Your task to perform on an android device: turn off javascript in the chrome app Image 0: 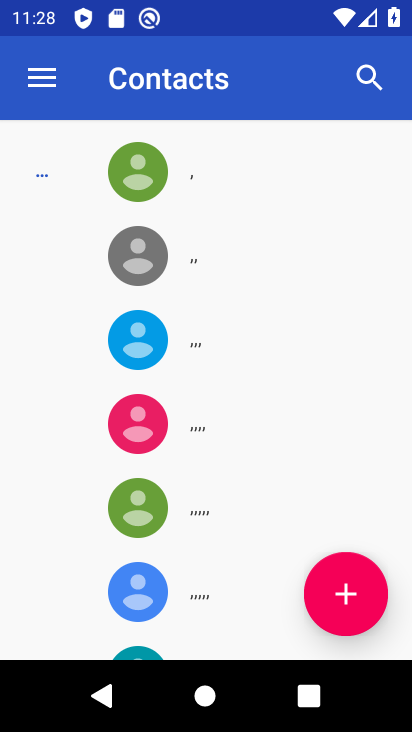
Step 0: press home button
Your task to perform on an android device: turn off javascript in the chrome app Image 1: 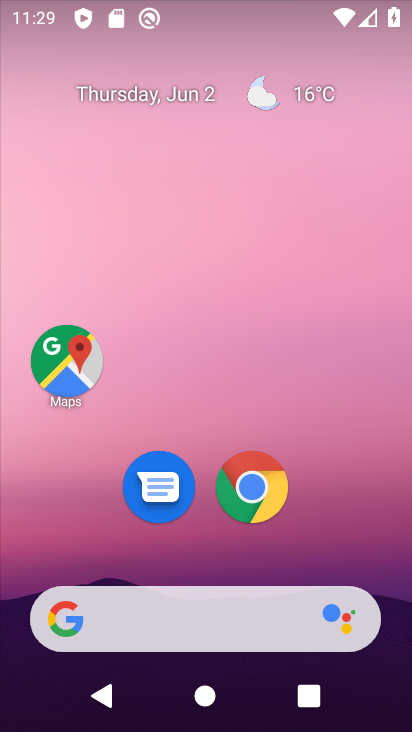
Step 1: click (270, 499)
Your task to perform on an android device: turn off javascript in the chrome app Image 2: 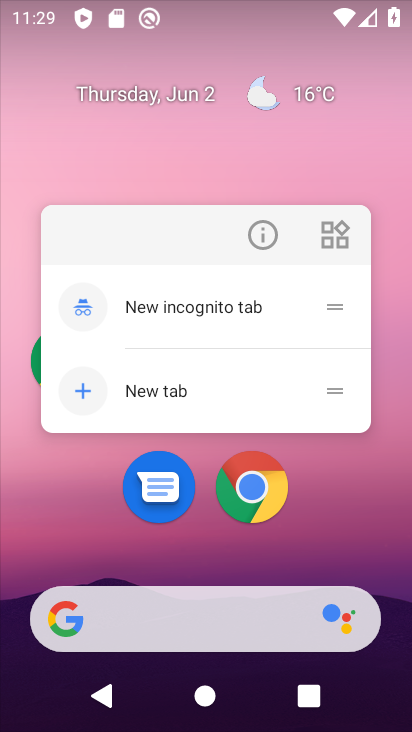
Step 2: click (270, 499)
Your task to perform on an android device: turn off javascript in the chrome app Image 3: 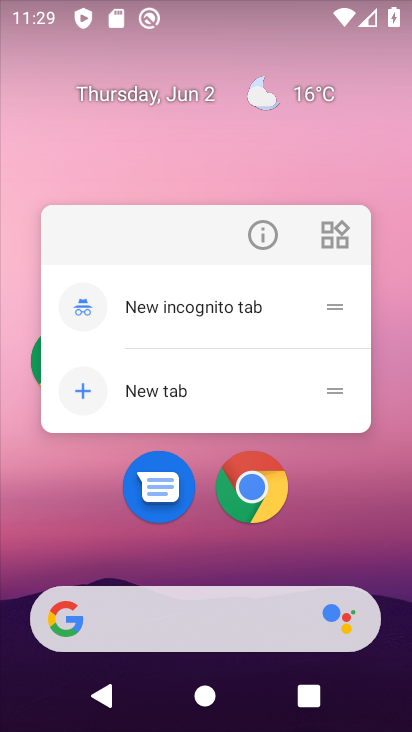
Step 3: click (254, 497)
Your task to perform on an android device: turn off javascript in the chrome app Image 4: 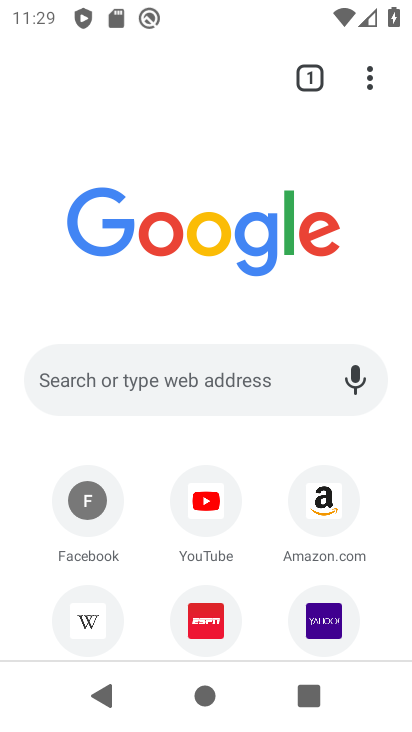
Step 4: press home button
Your task to perform on an android device: turn off javascript in the chrome app Image 5: 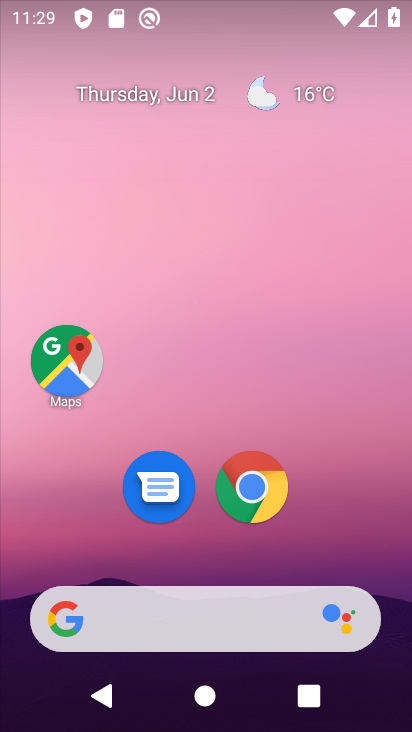
Step 5: click (264, 485)
Your task to perform on an android device: turn off javascript in the chrome app Image 6: 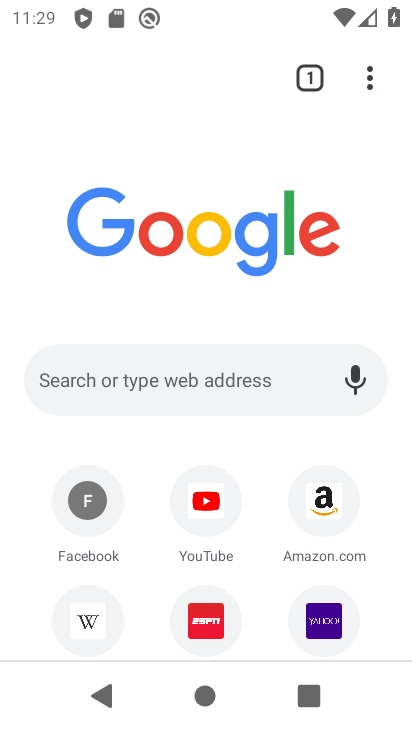
Step 6: drag from (377, 82) to (120, 565)
Your task to perform on an android device: turn off javascript in the chrome app Image 7: 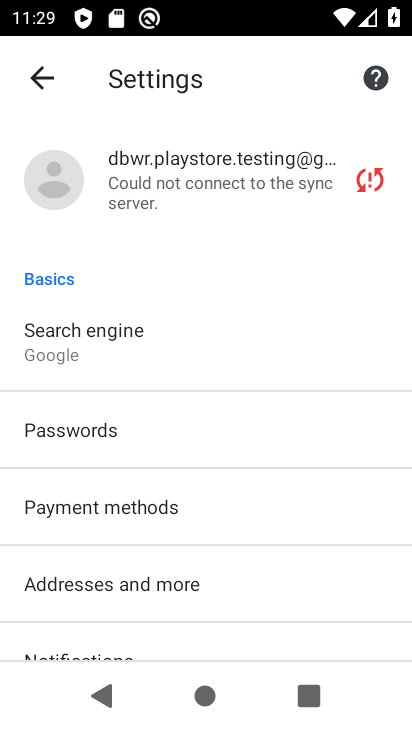
Step 7: drag from (210, 638) to (204, 412)
Your task to perform on an android device: turn off javascript in the chrome app Image 8: 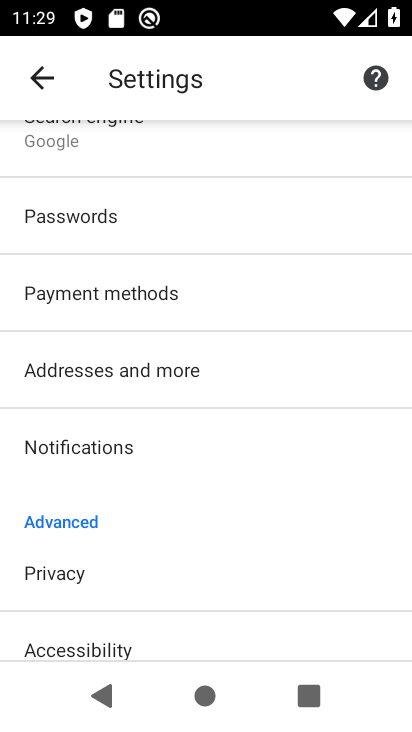
Step 8: drag from (155, 645) to (193, 377)
Your task to perform on an android device: turn off javascript in the chrome app Image 9: 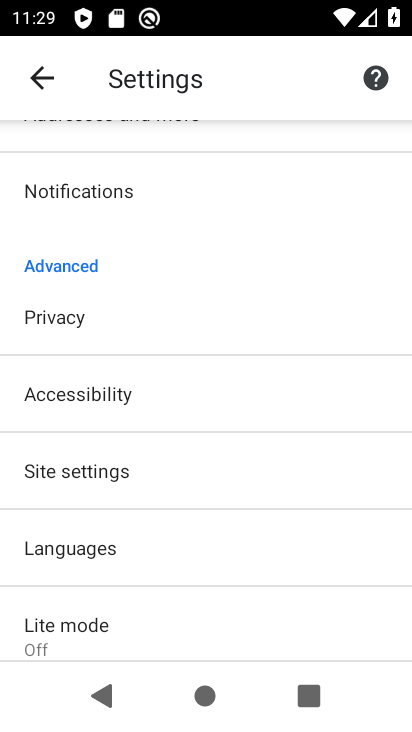
Step 9: click (72, 475)
Your task to perform on an android device: turn off javascript in the chrome app Image 10: 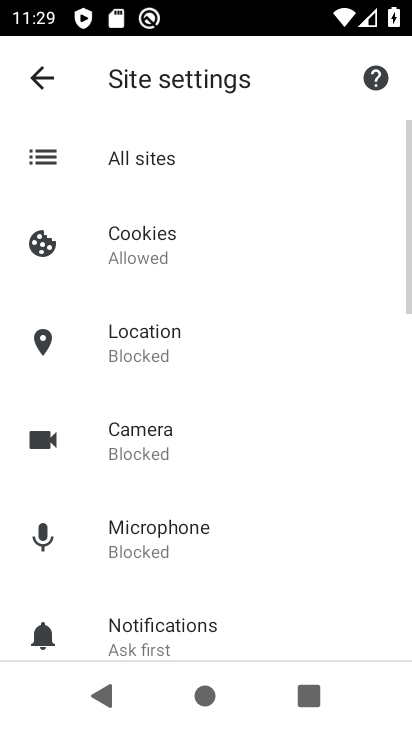
Step 10: drag from (267, 585) to (285, 297)
Your task to perform on an android device: turn off javascript in the chrome app Image 11: 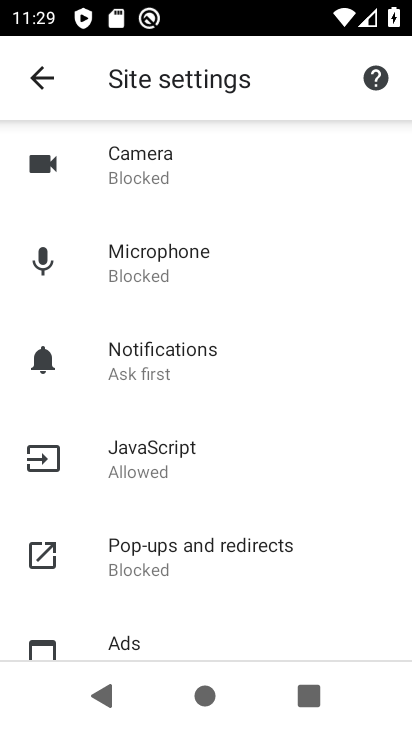
Step 11: drag from (210, 601) to (225, 317)
Your task to perform on an android device: turn off javascript in the chrome app Image 12: 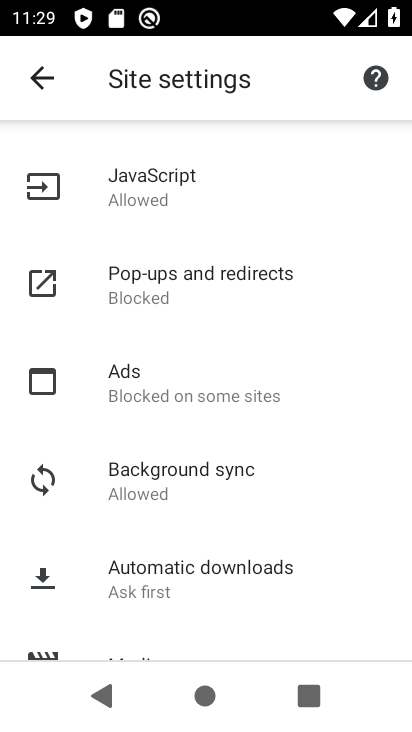
Step 12: click (146, 183)
Your task to perform on an android device: turn off javascript in the chrome app Image 13: 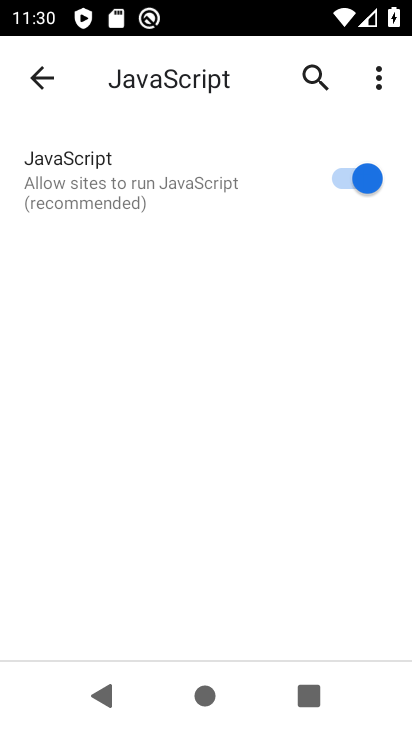
Step 13: click (366, 188)
Your task to perform on an android device: turn off javascript in the chrome app Image 14: 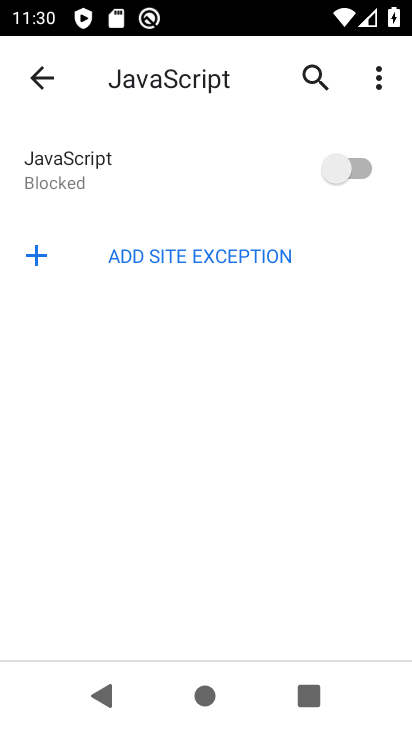
Step 14: task complete